Your task to perform on an android device: Search for sushi restaurants on Maps Image 0: 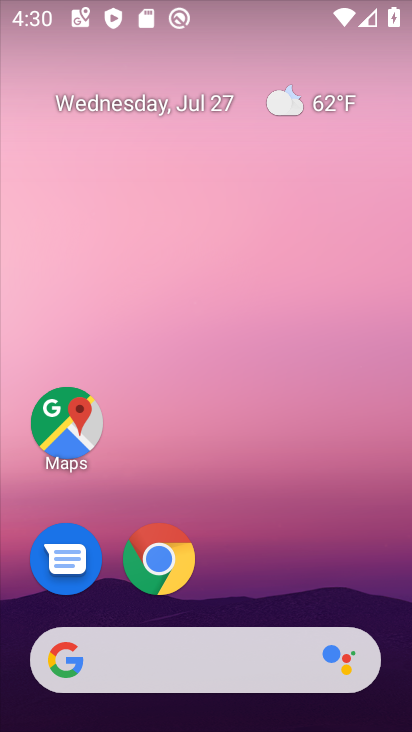
Step 0: click (68, 421)
Your task to perform on an android device: Search for sushi restaurants on Maps Image 1: 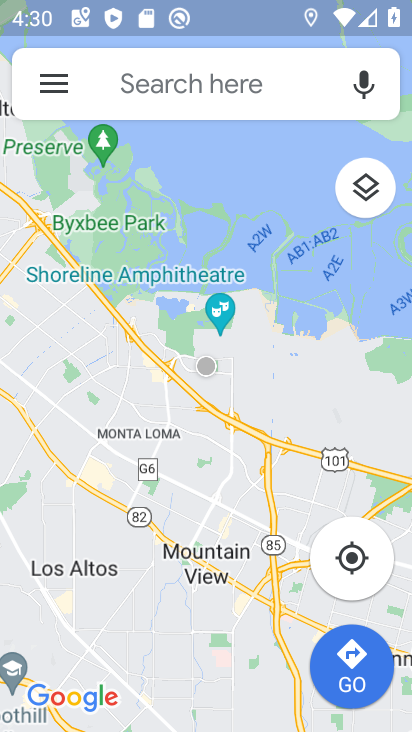
Step 1: click (177, 95)
Your task to perform on an android device: Search for sushi restaurants on Maps Image 2: 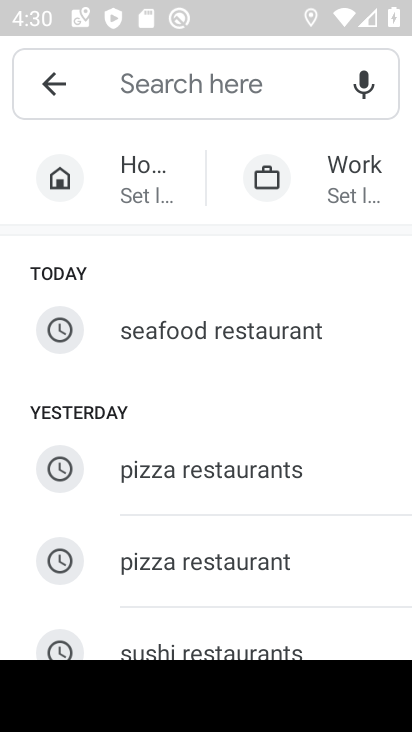
Step 2: click (152, 649)
Your task to perform on an android device: Search for sushi restaurants on Maps Image 3: 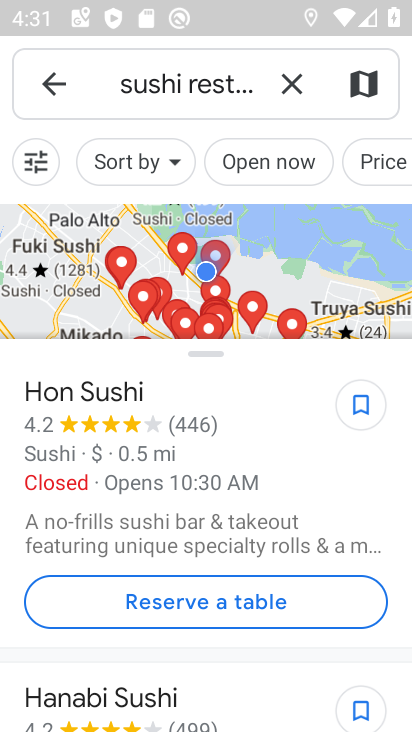
Step 3: task complete